Your task to perform on an android device: turn on wifi Image 0: 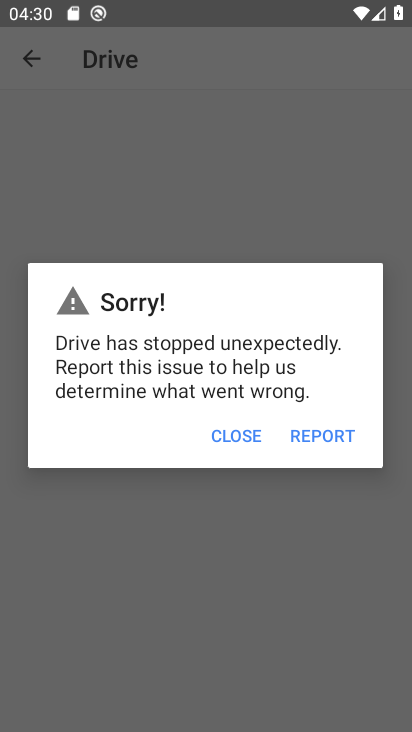
Step 0: drag from (230, 14) to (195, 694)
Your task to perform on an android device: turn on wifi Image 1: 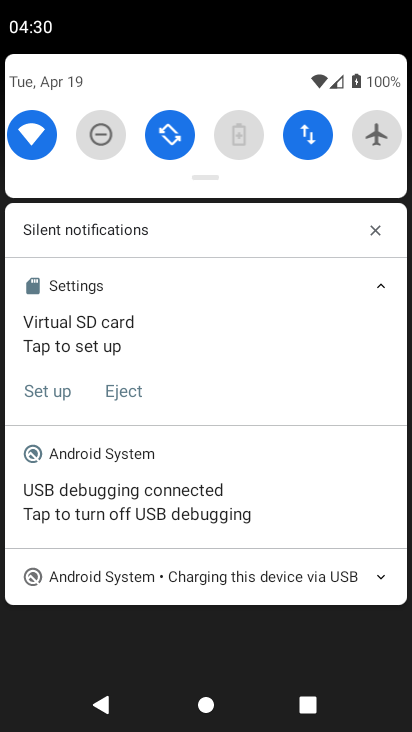
Step 1: task complete